Your task to perform on an android device: set default search engine in the chrome app Image 0: 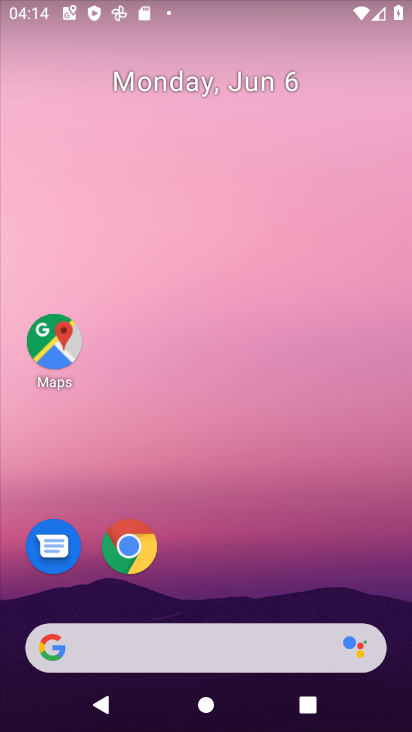
Step 0: task complete